Your task to perform on an android device: toggle pop-ups in chrome Image 0: 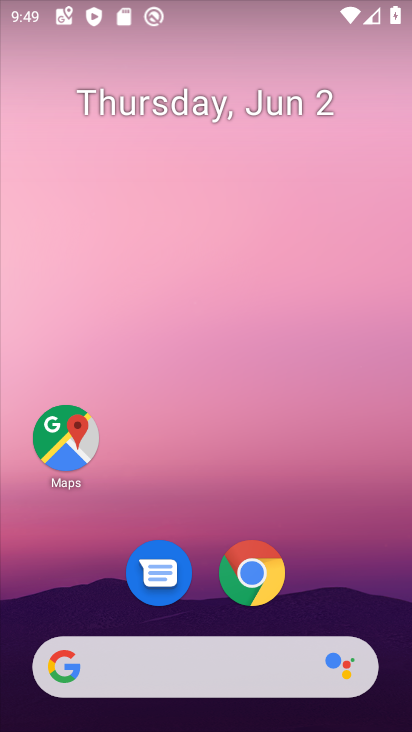
Step 0: click (263, 579)
Your task to perform on an android device: toggle pop-ups in chrome Image 1: 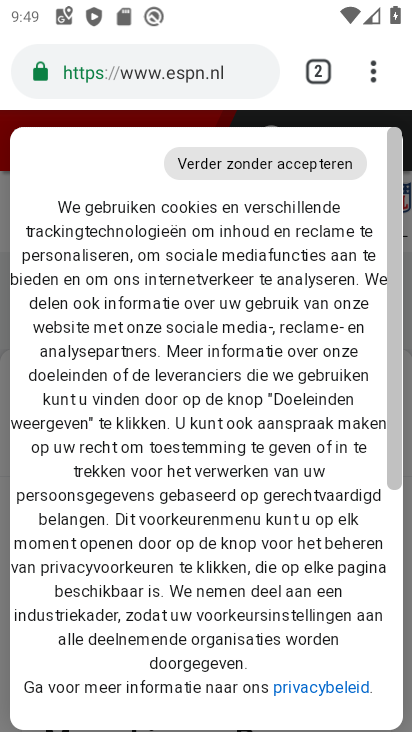
Step 1: click (379, 68)
Your task to perform on an android device: toggle pop-ups in chrome Image 2: 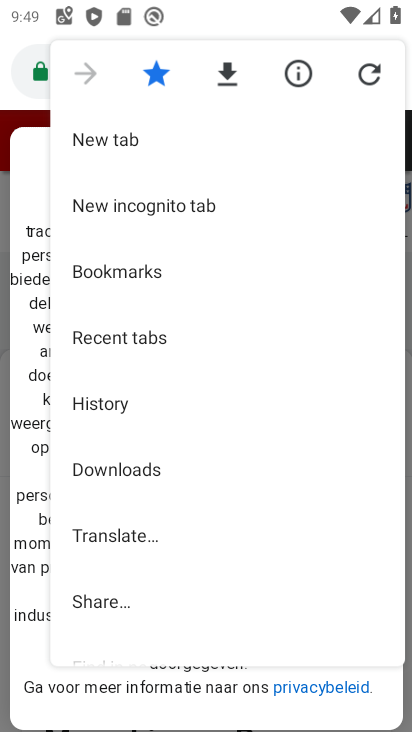
Step 2: drag from (183, 556) to (183, 114)
Your task to perform on an android device: toggle pop-ups in chrome Image 3: 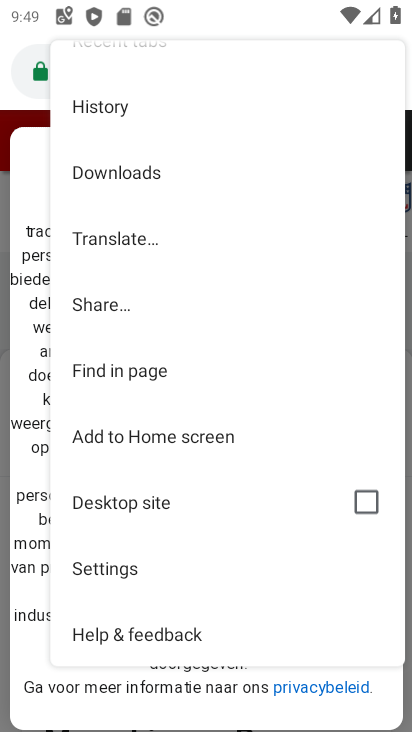
Step 3: click (115, 577)
Your task to perform on an android device: toggle pop-ups in chrome Image 4: 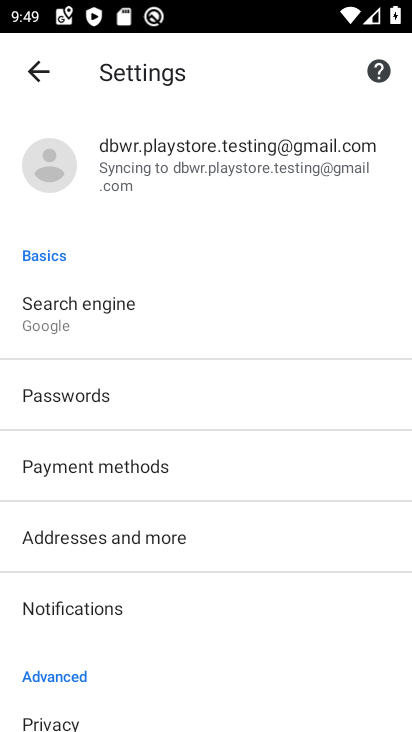
Step 4: drag from (256, 606) to (215, 313)
Your task to perform on an android device: toggle pop-ups in chrome Image 5: 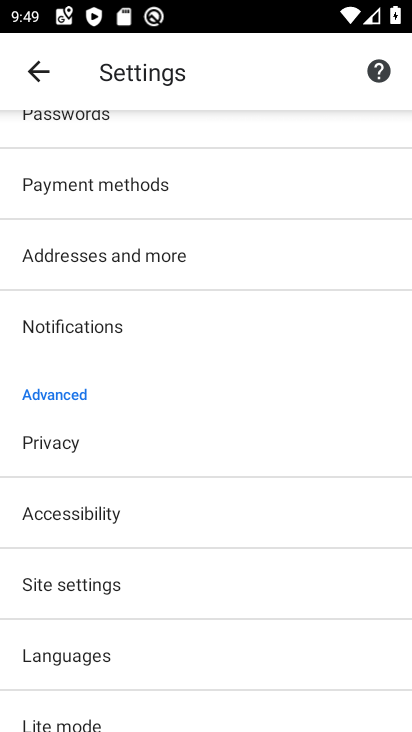
Step 5: click (135, 585)
Your task to perform on an android device: toggle pop-ups in chrome Image 6: 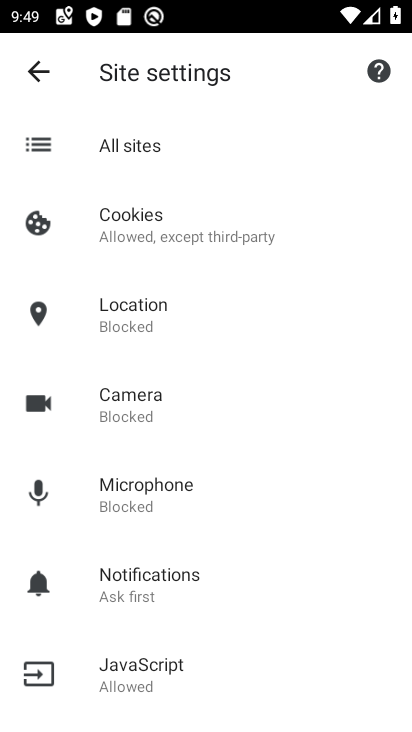
Step 6: drag from (212, 598) to (221, 226)
Your task to perform on an android device: toggle pop-ups in chrome Image 7: 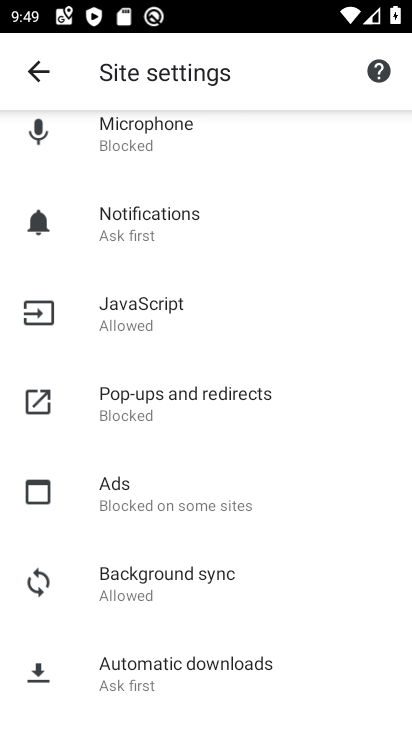
Step 7: click (202, 400)
Your task to perform on an android device: toggle pop-ups in chrome Image 8: 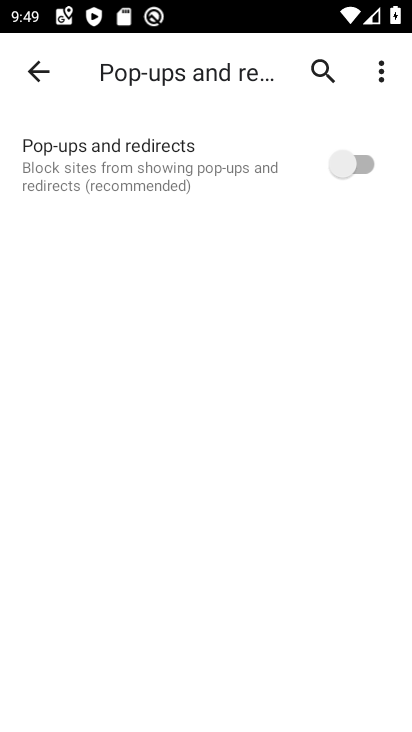
Step 8: click (356, 161)
Your task to perform on an android device: toggle pop-ups in chrome Image 9: 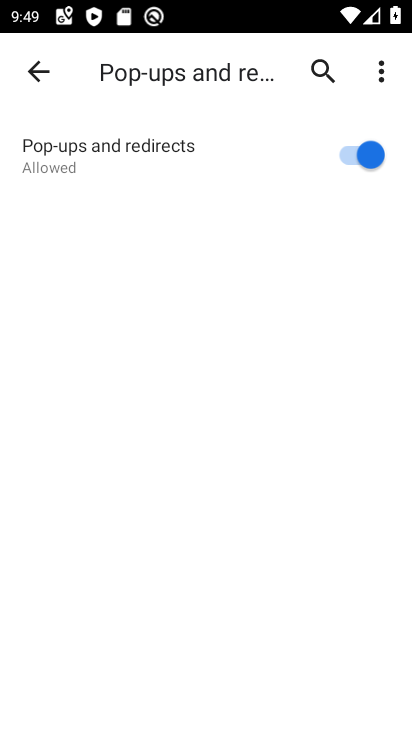
Step 9: task complete